Your task to perform on an android device: Go to Wikipedia Image 0: 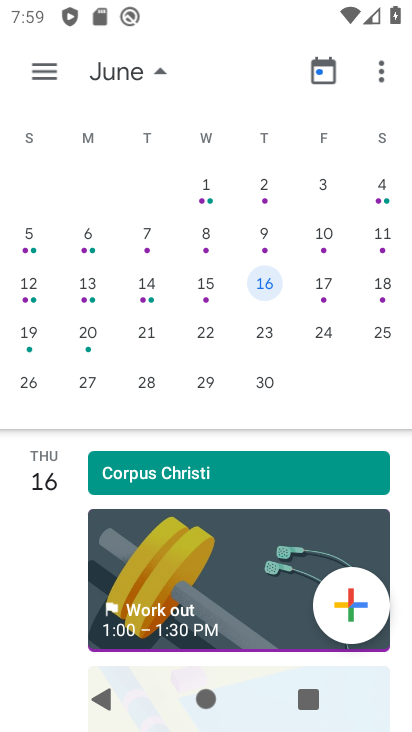
Step 0: press home button
Your task to perform on an android device: Go to Wikipedia Image 1: 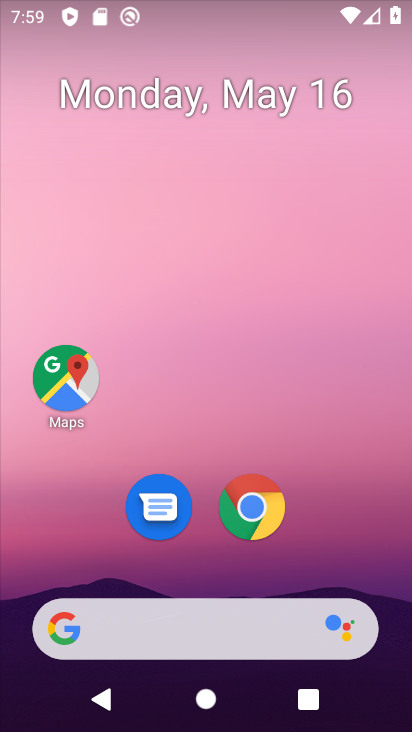
Step 1: click (270, 504)
Your task to perform on an android device: Go to Wikipedia Image 2: 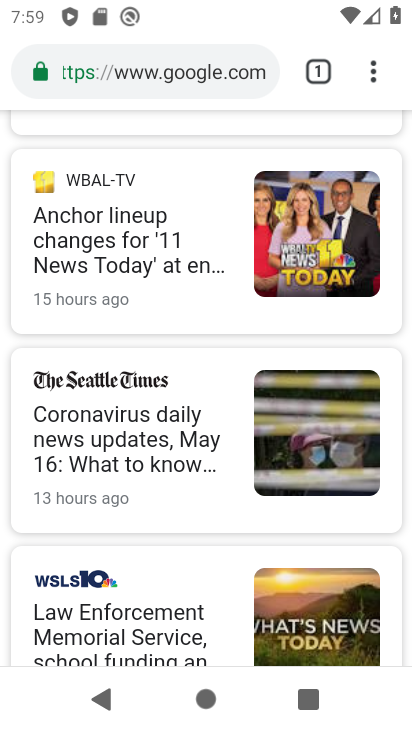
Step 2: drag from (370, 76) to (197, 154)
Your task to perform on an android device: Go to Wikipedia Image 3: 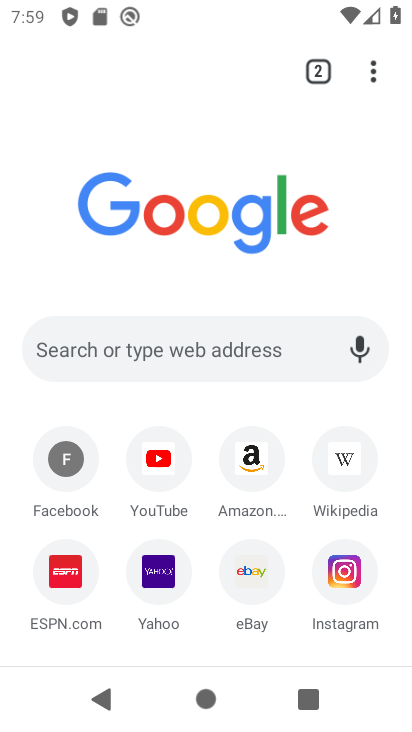
Step 3: click (343, 461)
Your task to perform on an android device: Go to Wikipedia Image 4: 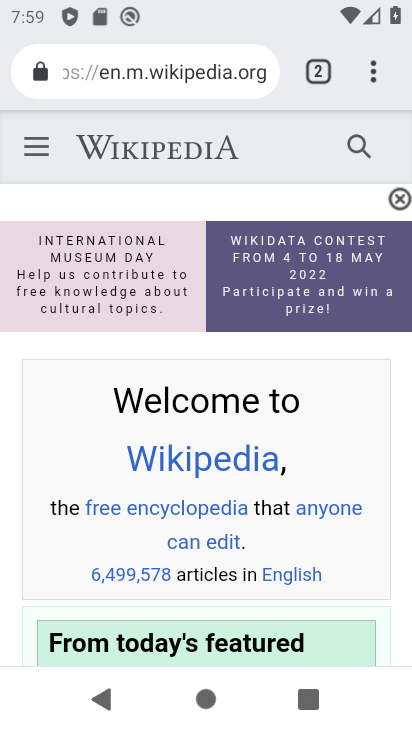
Step 4: task complete